Your task to perform on an android device: Go to Yahoo.com Image 0: 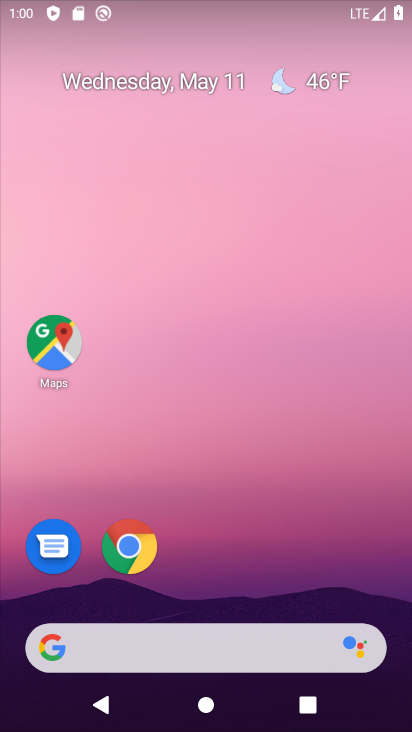
Step 0: drag from (255, 676) to (264, 230)
Your task to perform on an android device: Go to Yahoo.com Image 1: 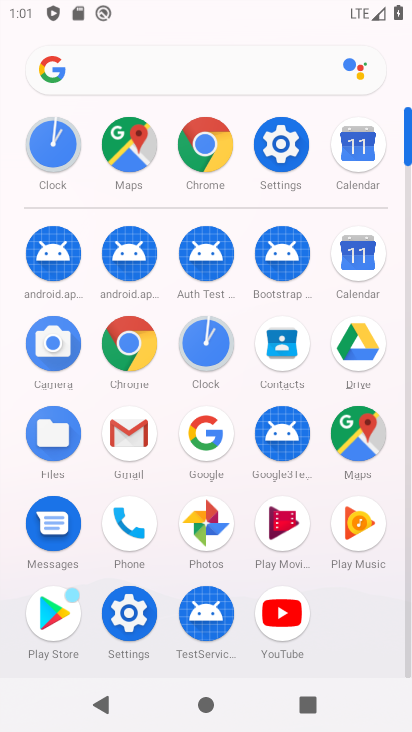
Step 1: click (201, 153)
Your task to perform on an android device: Go to Yahoo.com Image 2: 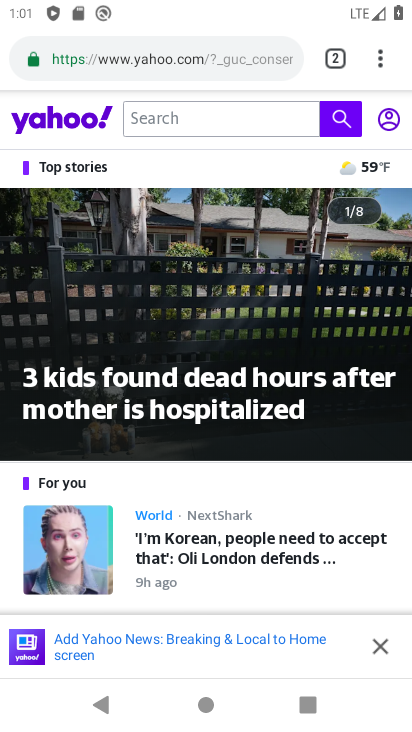
Step 2: click (333, 61)
Your task to perform on an android device: Go to Yahoo.com Image 3: 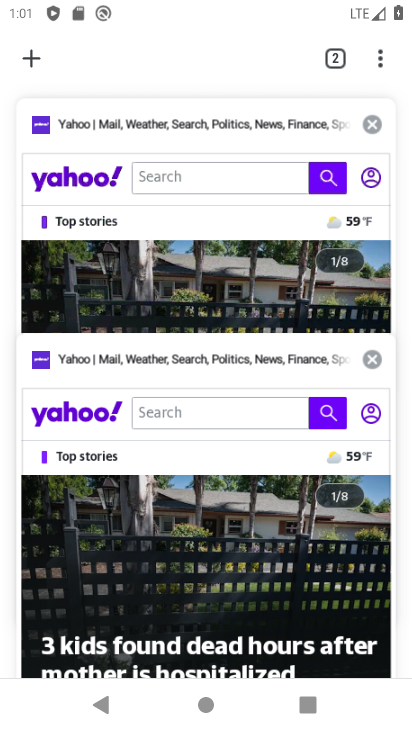
Step 3: click (30, 62)
Your task to perform on an android device: Go to Yahoo.com Image 4: 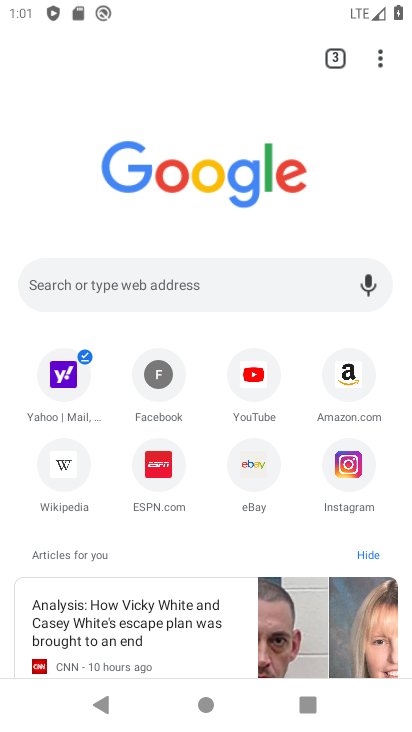
Step 4: click (52, 378)
Your task to perform on an android device: Go to Yahoo.com Image 5: 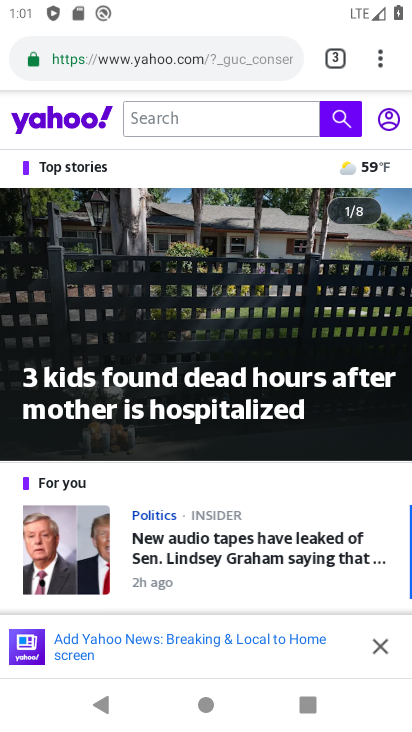
Step 5: task complete